Your task to perform on an android device: Open location settings Image 0: 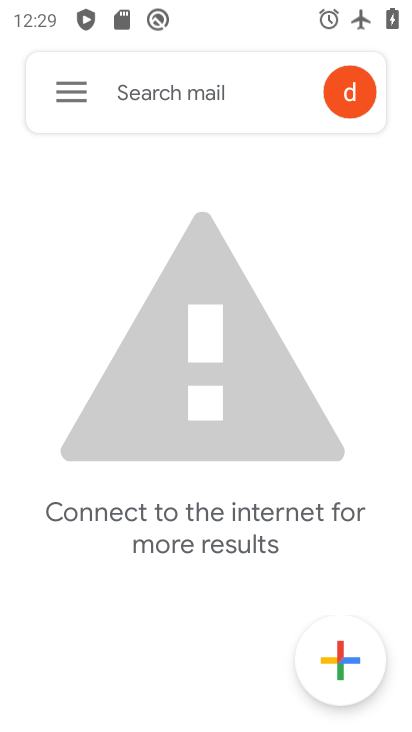
Step 0: press home button
Your task to perform on an android device: Open location settings Image 1: 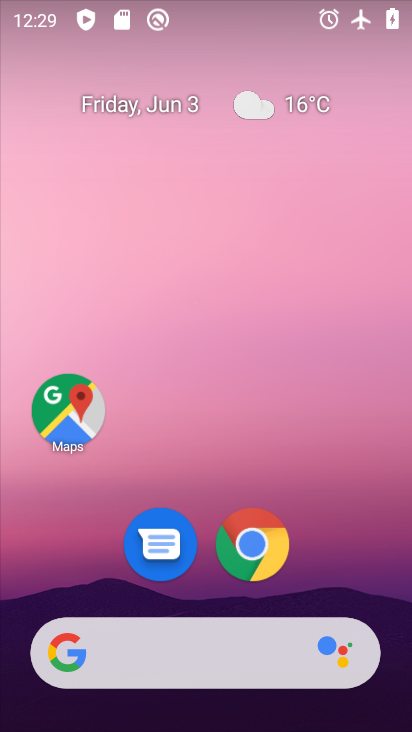
Step 1: drag from (362, 554) to (372, 167)
Your task to perform on an android device: Open location settings Image 2: 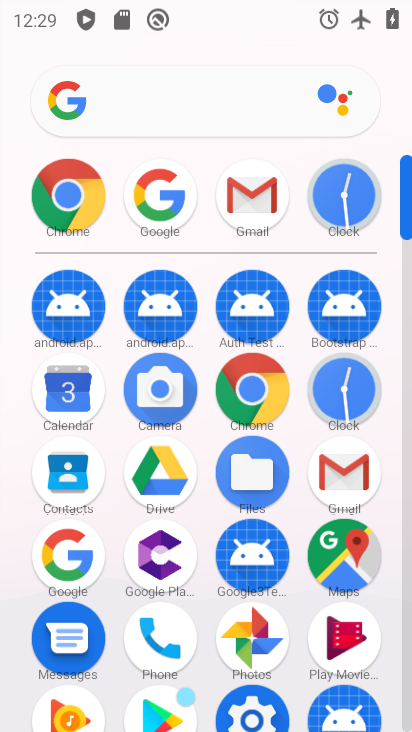
Step 2: drag from (162, 596) to (186, 361)
Your task to perform on an android device: Open location settings Image 3: 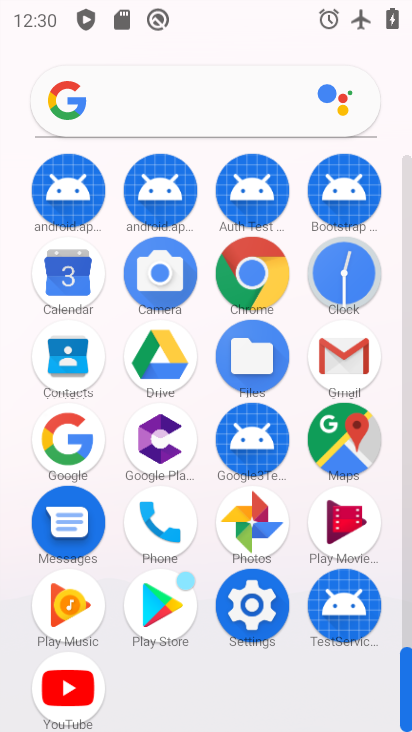
Step 3: click (245, 598)
Your task to perform on an android device: Open location settings Image 4: 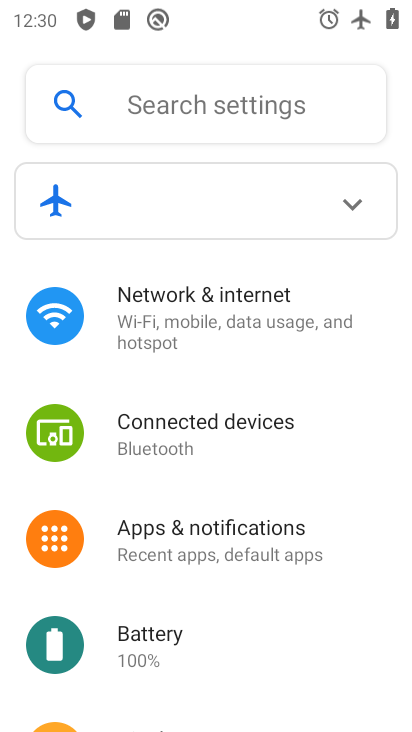
Step 4: drag from (220, 632) to (243, 210)
Your task to perform on an android device: Open location settings Image 5: 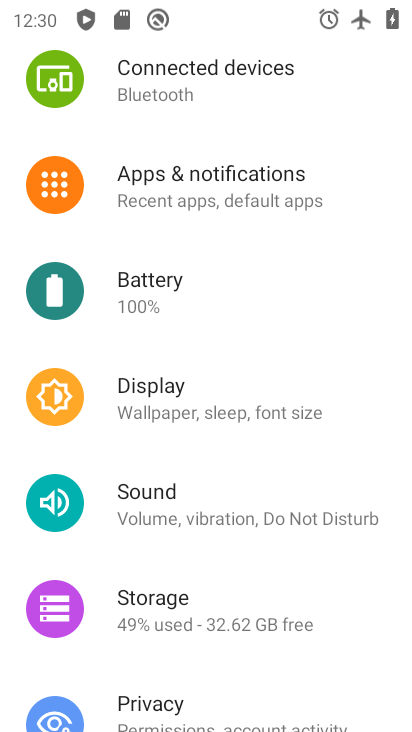
Step 5: drag from (217, 597) to (223, 262)
Your task to perform on an android device: Open location settings Image 6: 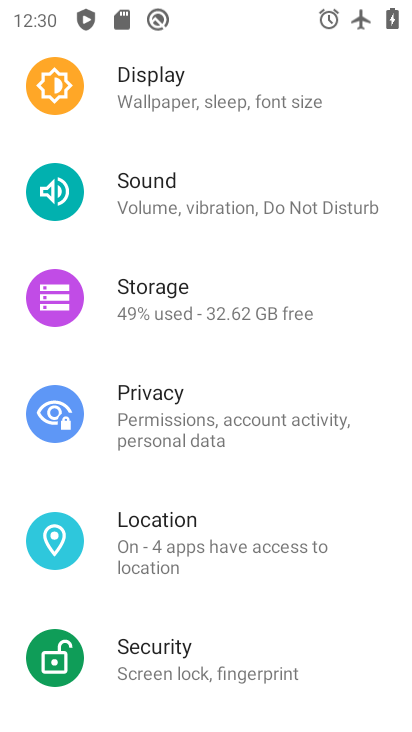
Step 6: click (188, 544)
Your task to perform on an android device: Open location settings Image 7: 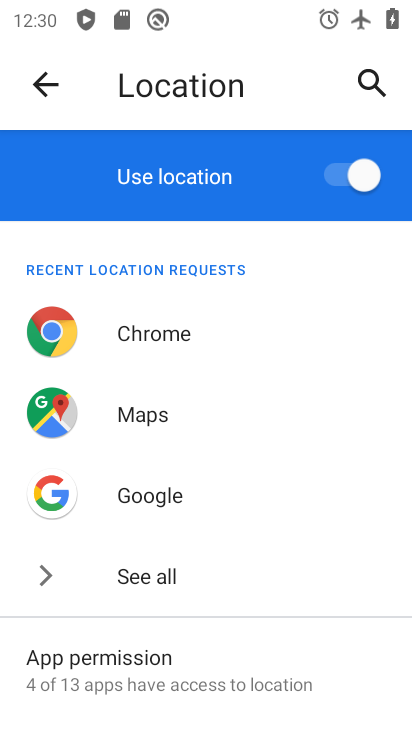
Step 7: task complete